Your task to perform on an android device: change your default location settings in chrome Image 0: 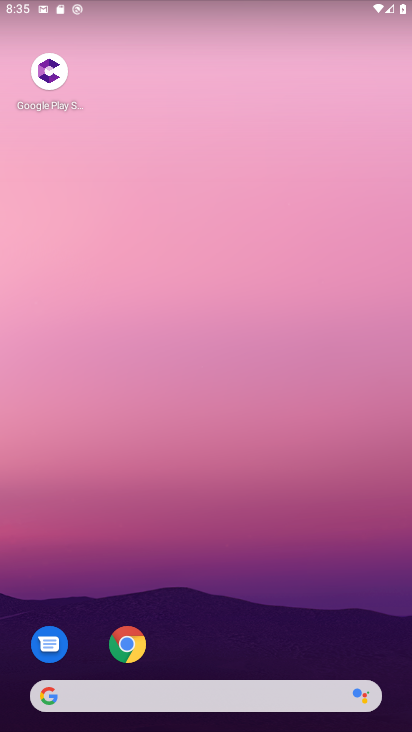
Step 0: click (125, 644)
Your task to perform on an android device: change your default location settings in chrome Image 1: 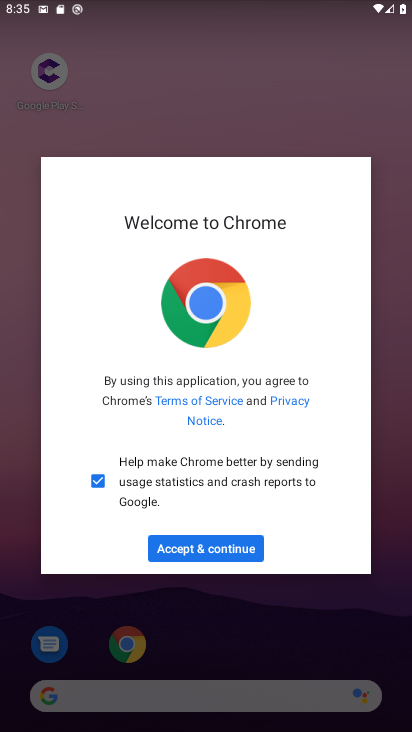
Step 1: click (216, 550)
Your task to perform on an android device: change your default location settings in chrome Image 2: 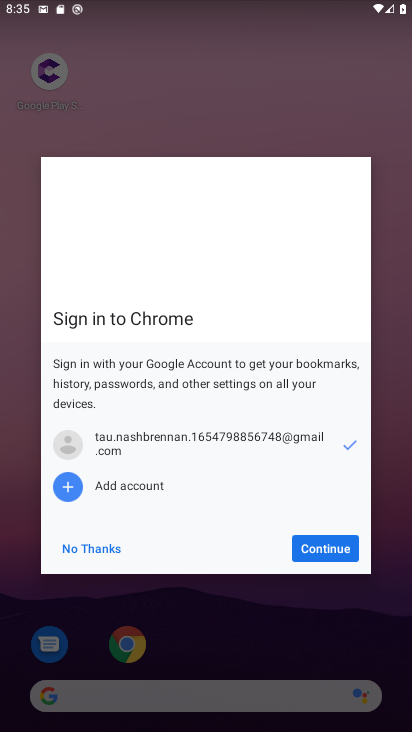
Step 2: click (349, 550)
Your task to perform on an android device: change your default location settings in chrome Image 3: 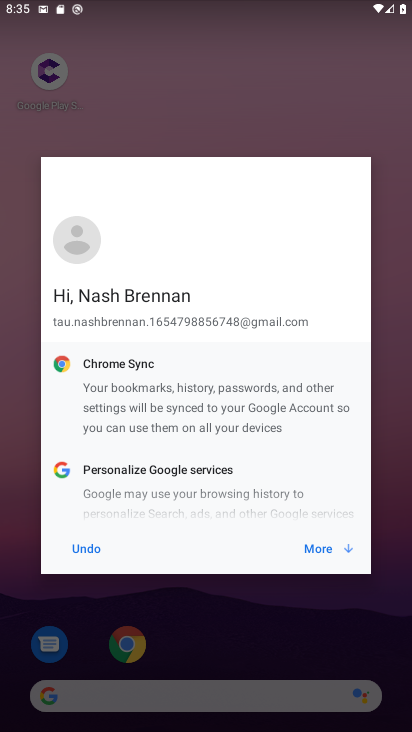
Step 3: click (349, 550)
Your task to perform on an android device: change your default location settings in chrome Image 4: 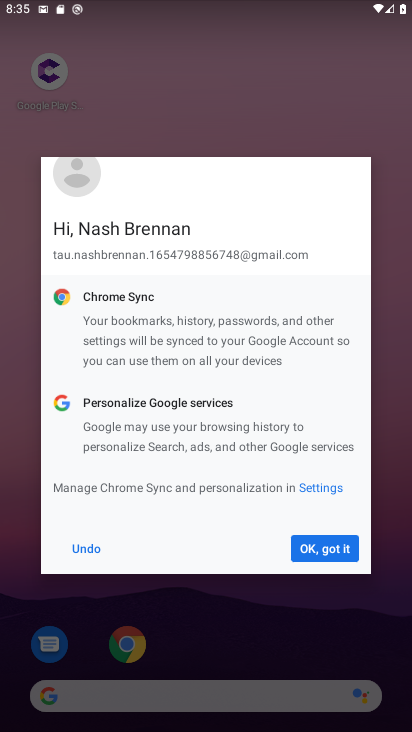
Step 4: click (349, 550)
Your task to perform on an android device: change your default location settings in chrome Image 5: 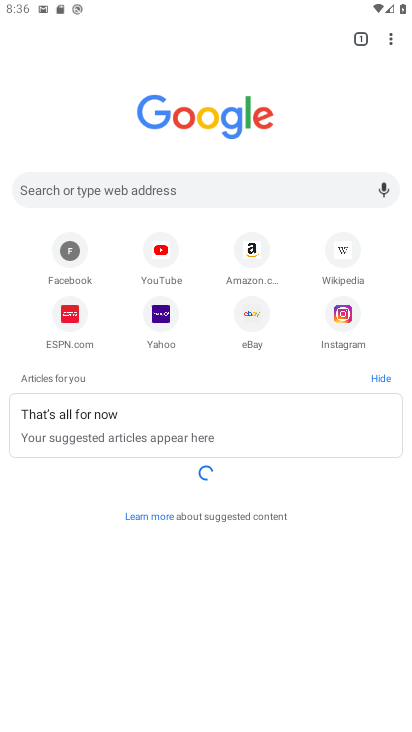
Step 5: click (389, 37)
Your task to perform on an android device: change your default location settings in chrome Image 6: 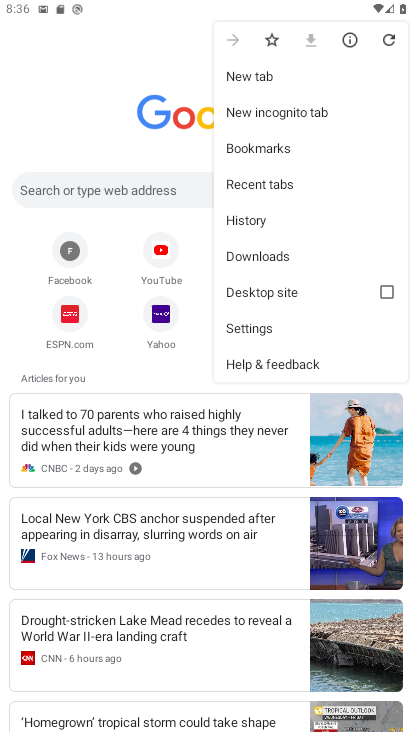
Step 6: click (263, 332)
Your task to perform on an android device: change your default location settings in chrome Image 7: 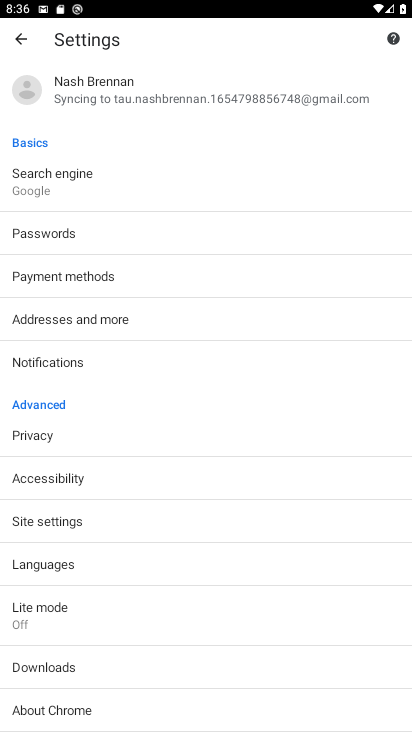
Step 7: click (21, 513)
Your task to perform on an android device: change your default location settings in chrome Image 8: 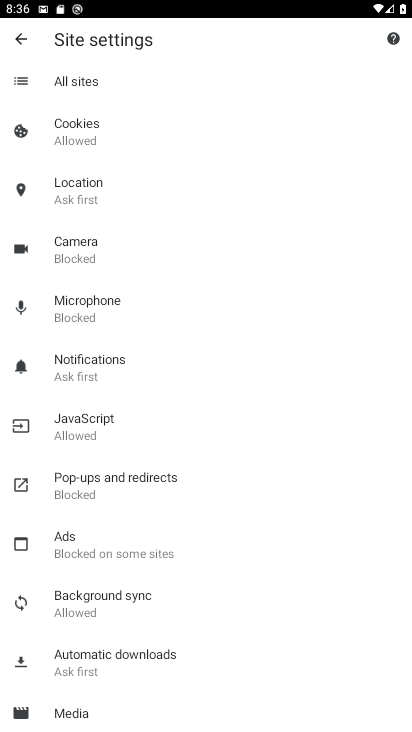
Step 8: click (80, 189)
Your task to perform on an android device: change your default location settings in chrome Image 9: 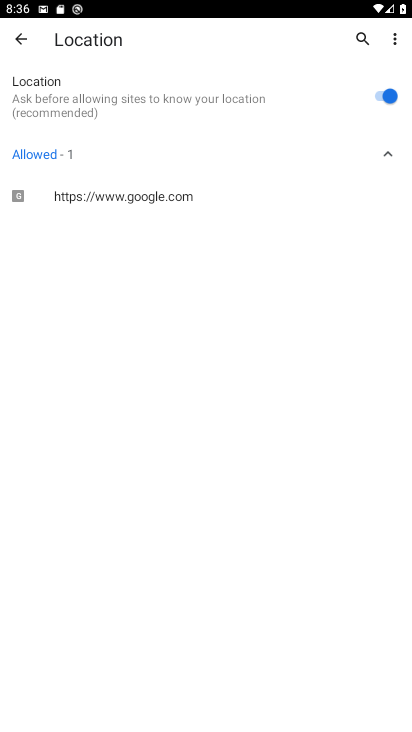
Step 9: click (377, 93)
Your task to perform on an android device: change your default location settings in chrome Image 10: 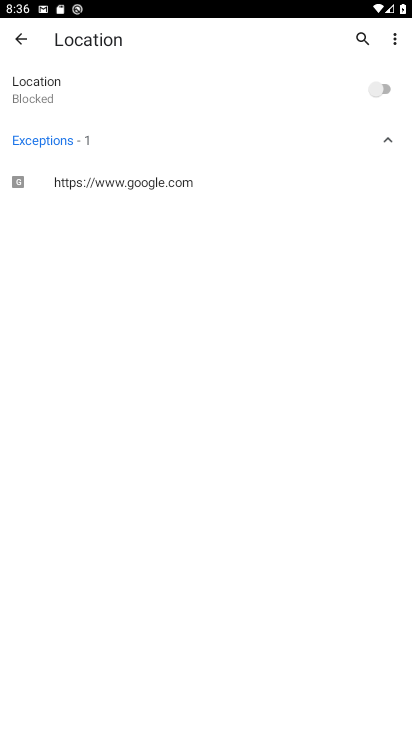
Step 10: task complete